Your task to perform on an android device: move a message to another label in the gmail app Image 0: 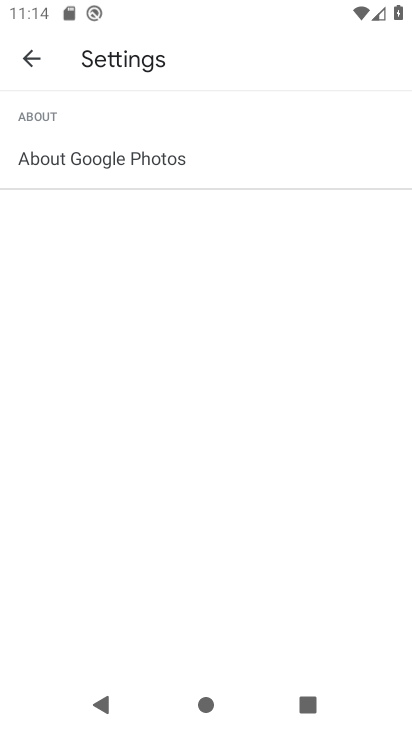
Step 0: press home button
Your task to perform on an android device: move a message to another label in the gmail app Image 1: 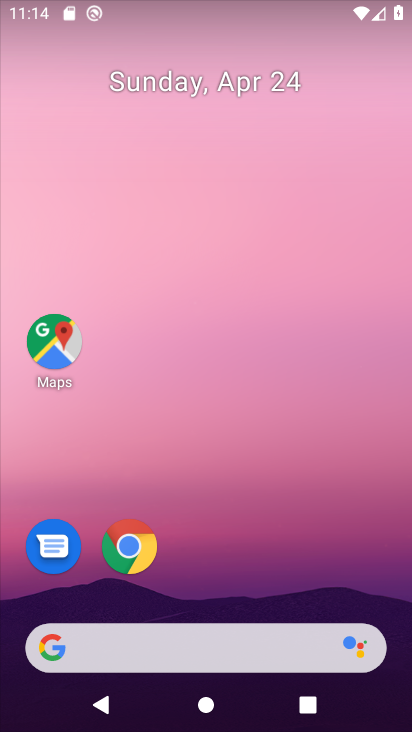
Step 1: drag from (207, 574) to (220, 129)
Your task to perform on an android device: move a message to another label in the gmail app Image 2: 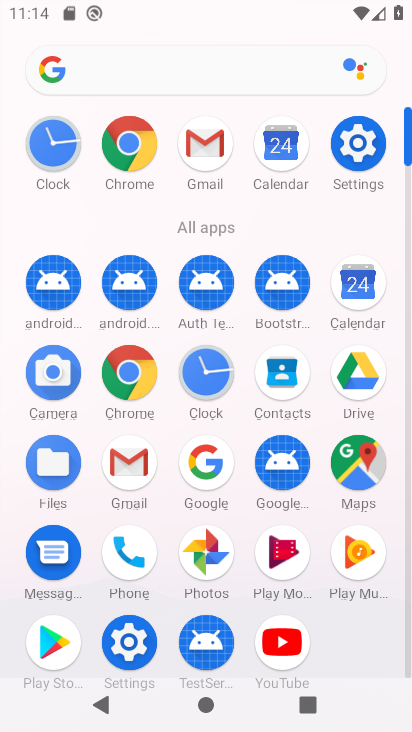
Step 2: click (203, 162)
Your task to perform on an android device: move a message to another label in the gmail app Image 3: 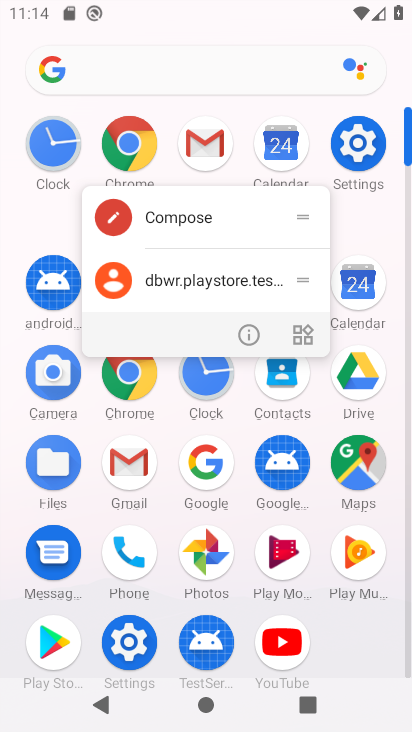
Step 3: click (195, 134)
Your task to perform on an android device: move a message to another label in the gmail app Image 4: 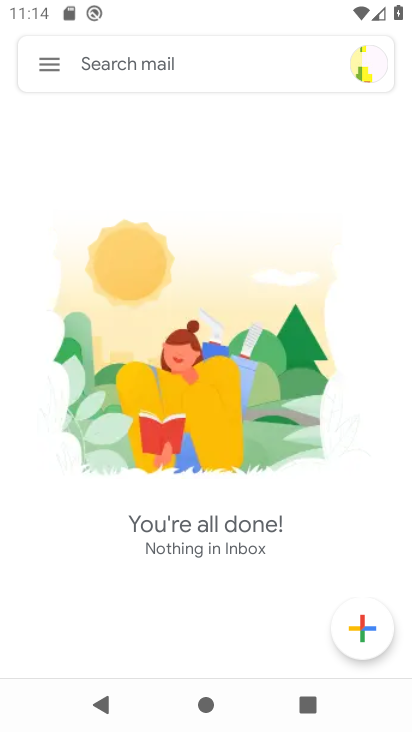
Step 4: task complete